Your task to perform on an android device: Set an alarm for 12pm Image 0: 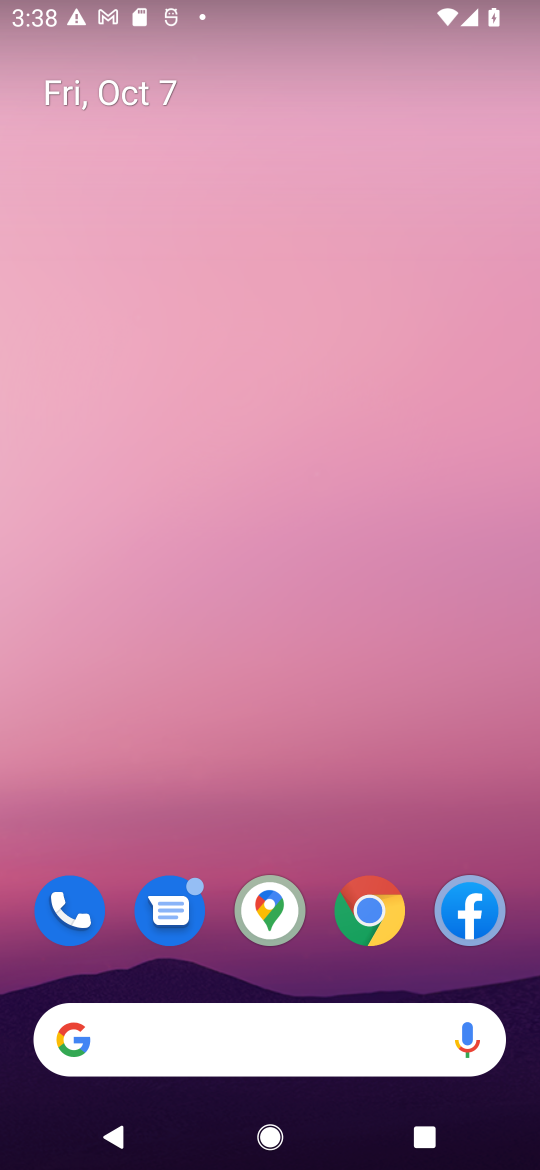
Step 0: click (248, 1033)
Your task to perform on an android device: Set an alarm for 12pm Image 1: 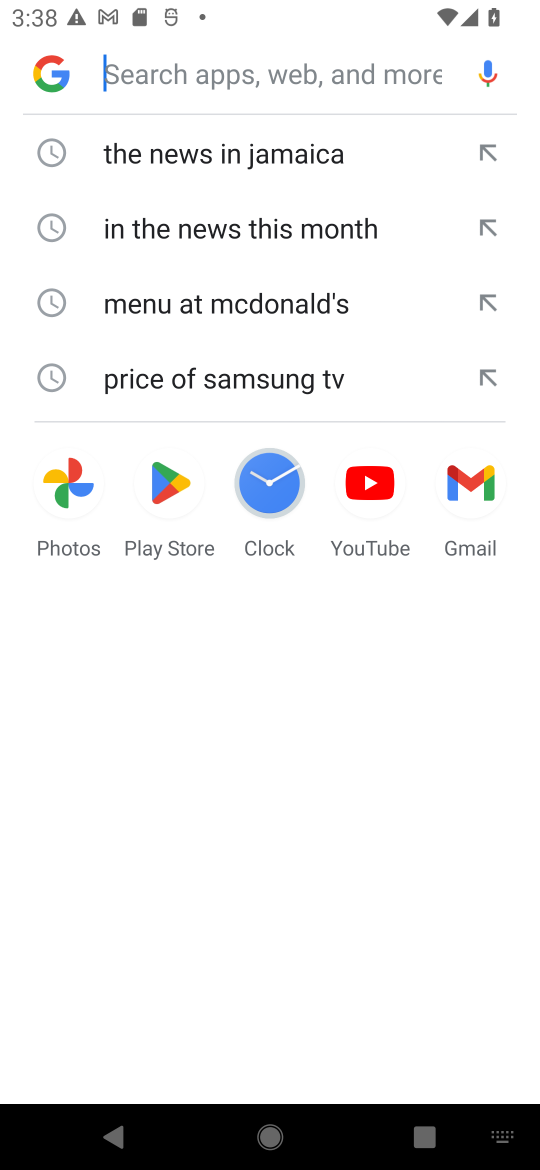
Step 1: press home button
Your task to perform on an android device: Set an alarm for 12pm Image 2: 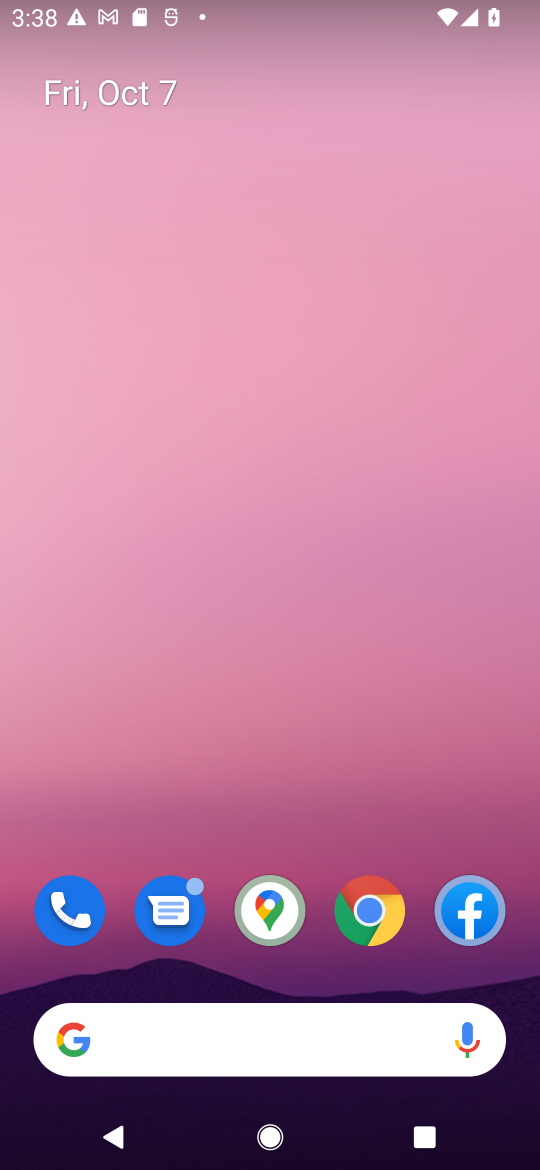
Step 2: drag from (266, 921) to (348, 67)
Your task to perform on an android device: Set an alarm for 12pm Image 3: 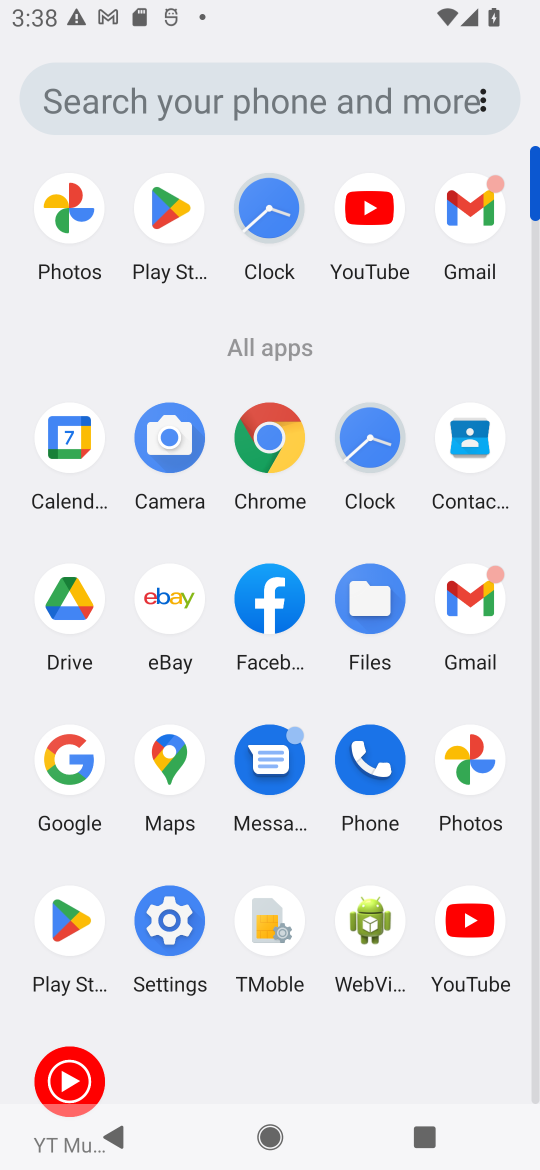
Step 3: click (259, 235)
Your task to perform on an android device: Set an alarm for 12pm Image 4: 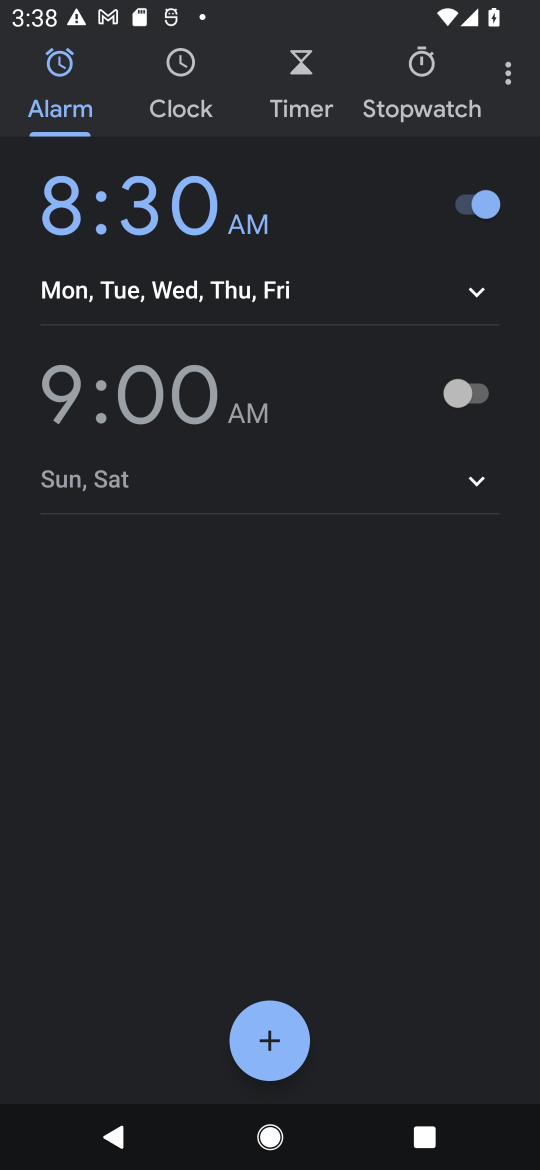
Step 4: click (482, 394)
Your task to perform on an android device: Set an alarm for 12pm Image 5: 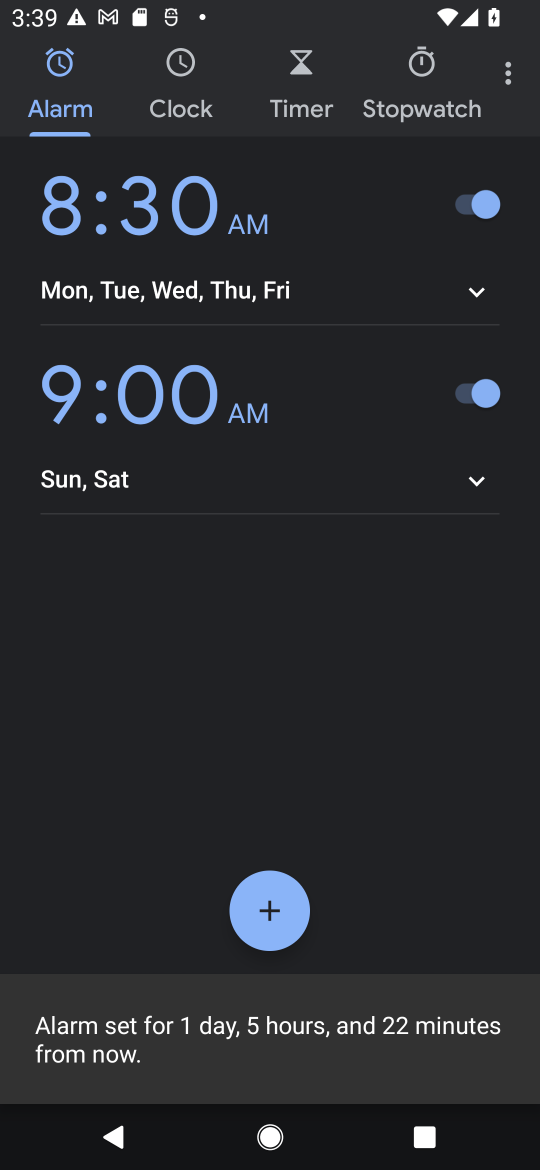
Step 5: task complete